Your task to perform on an android device: change the clock display to show seconds Image 0: 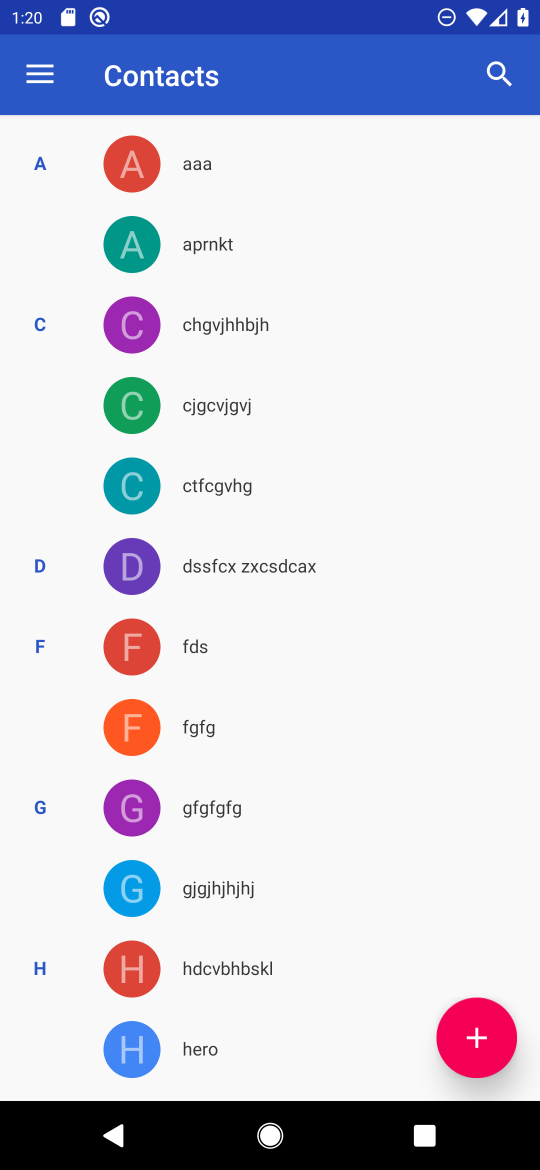
Step 0: press home button
Your task to perform on an android device: change the clock display to show seconds Image 1: 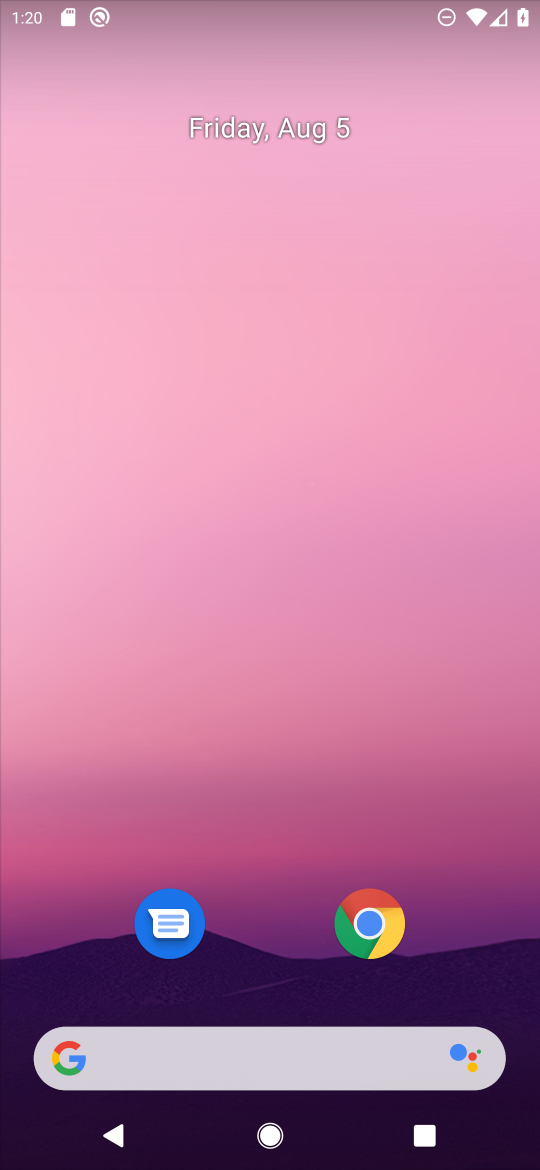
Step 1: drag from (272, 1023) to (391, 319)
Your task to perform on an android device: change the clock display to show seconds Image 2: 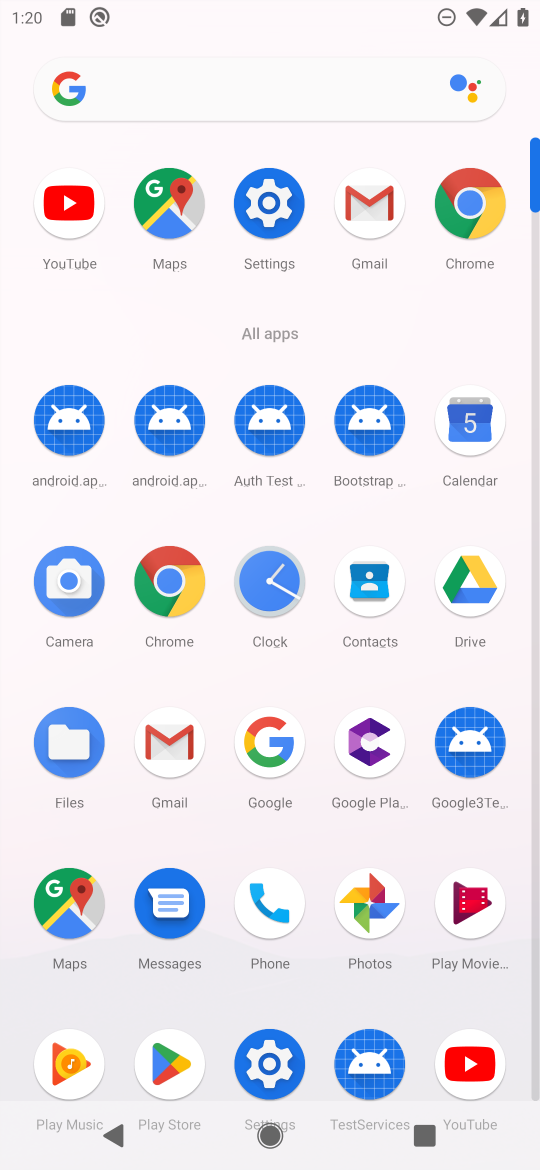
Step 2: click (257, 548)
Your task to perform on an android device: change the clock display to show seconds Image 3: 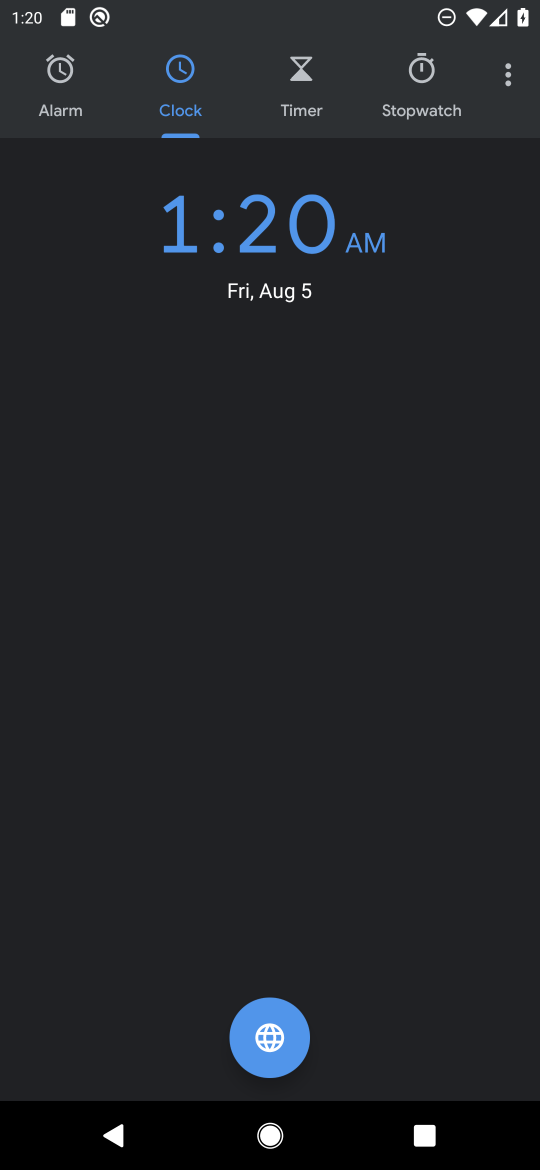
Step 3: drag from (507, 76) to (350, 167)
Your task to perform on an android device: change the clock display to show seconds Image 4: 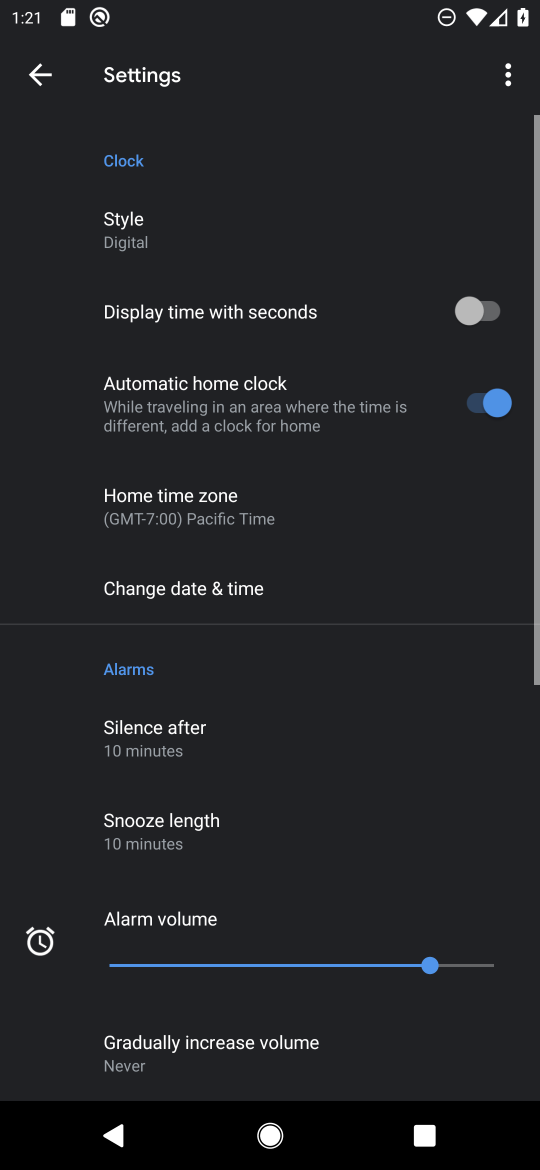
Step 4: click (113, 221)
Your task to perform on an android device: change the clock display to show seconds Image 5: 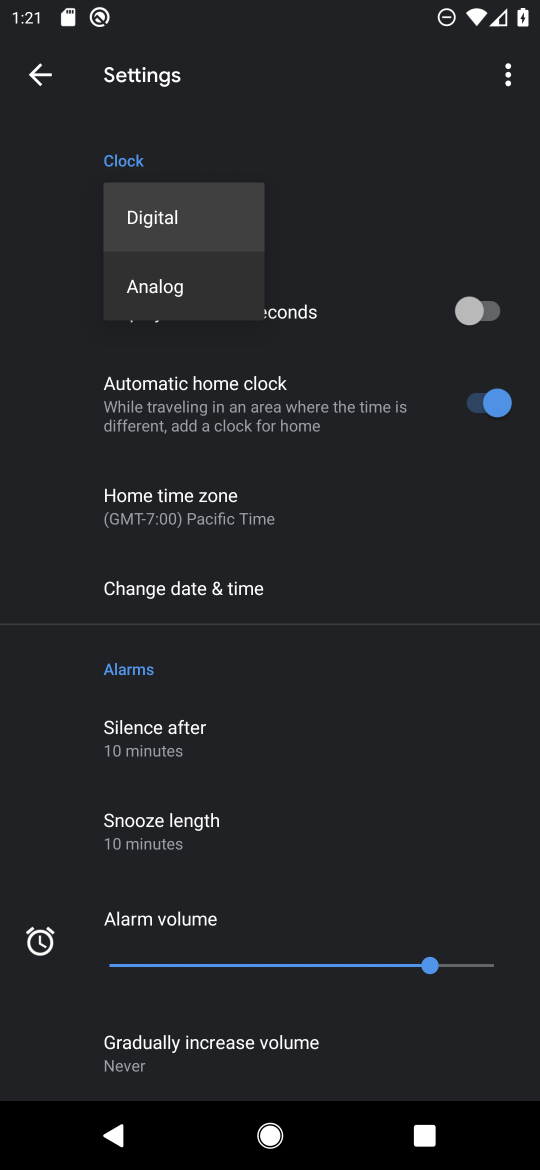
Step 5: click (428, 331)
Your task to perform on an android device: change the clock display to show seconds Image 6: 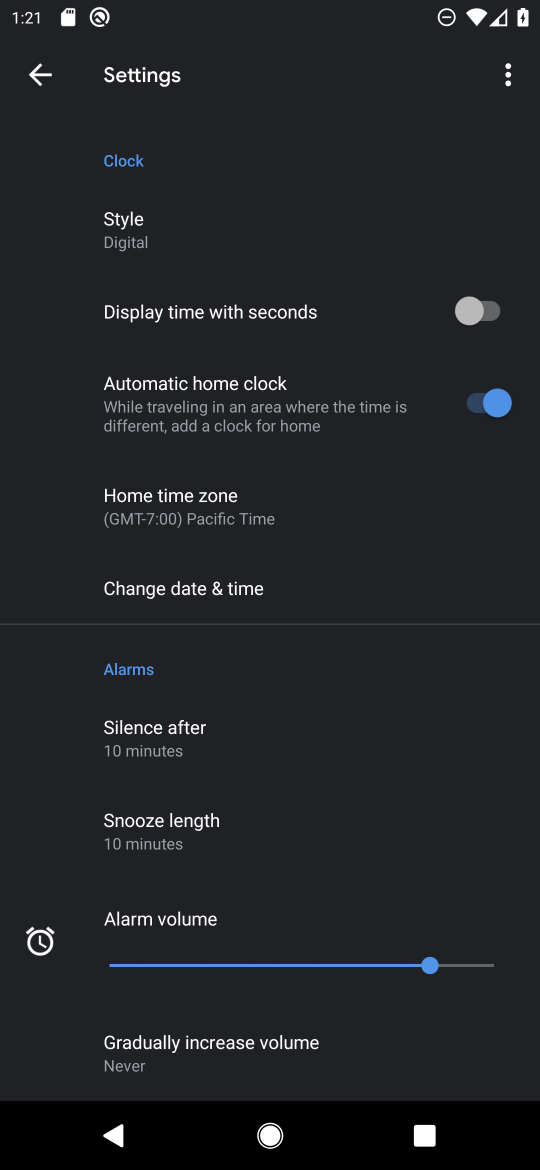
Step 6: click (427, 329)
Your task to perform on an android device: change the clock display to show seconds Image 7: 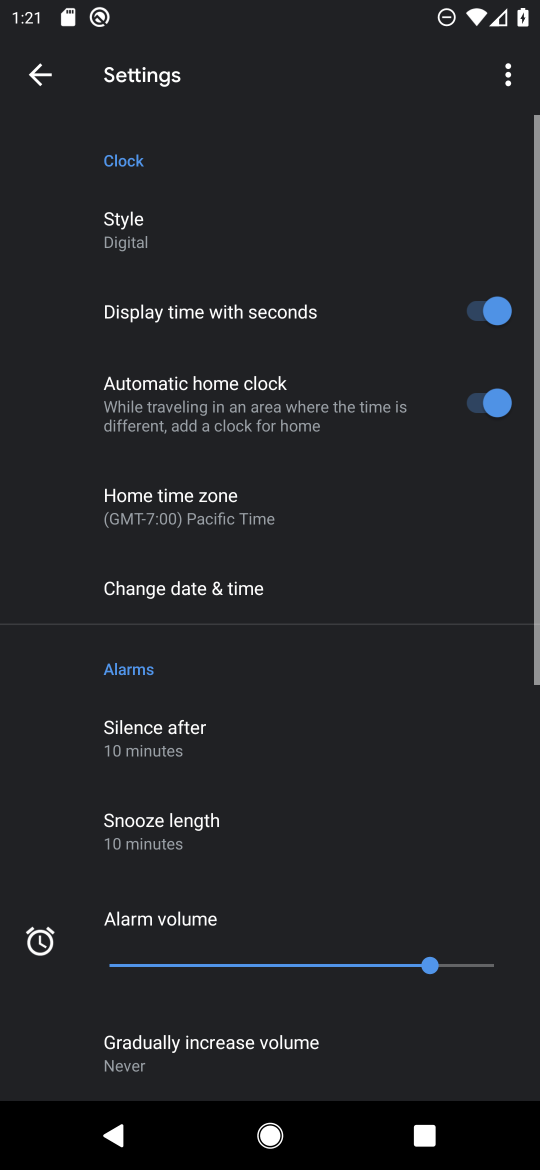
Step 7: task complete